Your task to perform on an android device: Open calendar and show me the third week of next month Image 0: 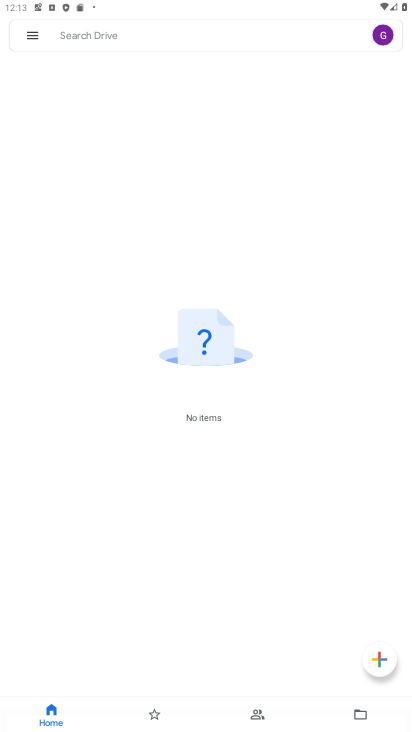
Step 0: press home button
Your task to perform on an android device: Open calendar and show me the third week of next month Image 1: 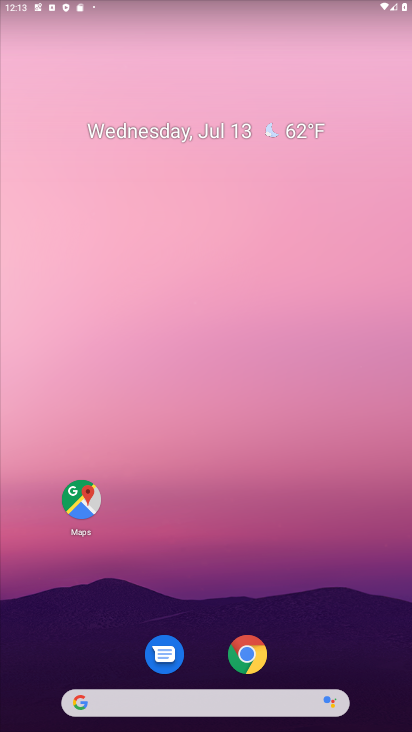
Step 1: drag from (290, 631) to (366, 259)
Your task to perform on an android device: Open calendar and show me the third week of next month Image 2: 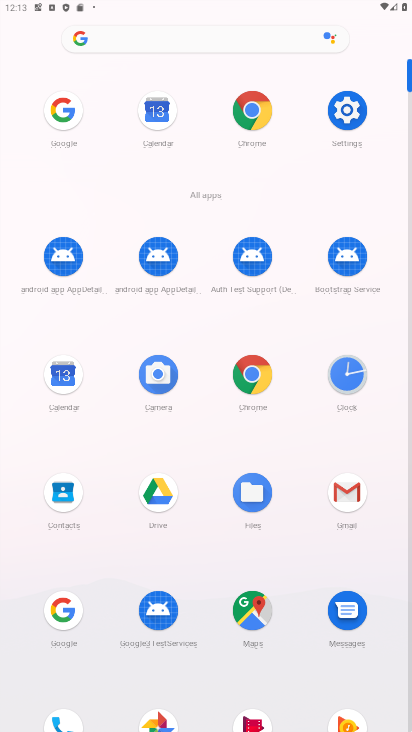
Step 2: click (61, 367)
Your task to perform on an android device: Open calendar and show me the third week of next month Image 3: 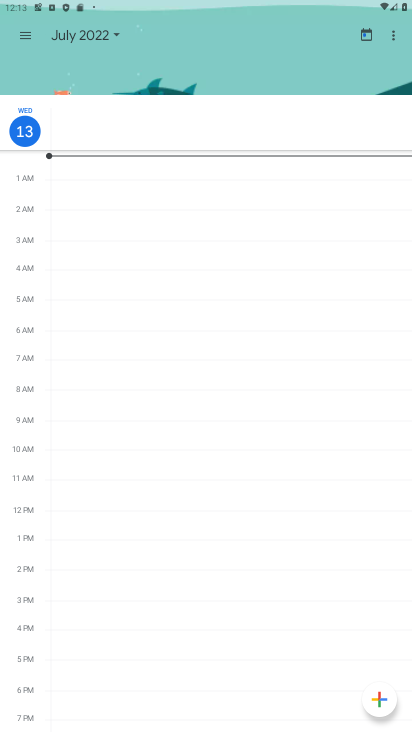
Step 3: click (115, 41)
Your task to perform on an android device: Open calendar and show me the third week of next month Image 4: 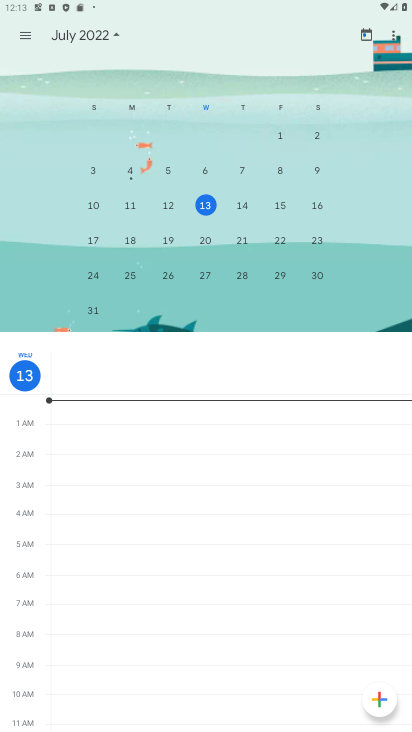
Step 4: drag from (330, 237) to (1, 235)
Your task to perform on an android device: Open calendar and show me the third week of next month Image 5: 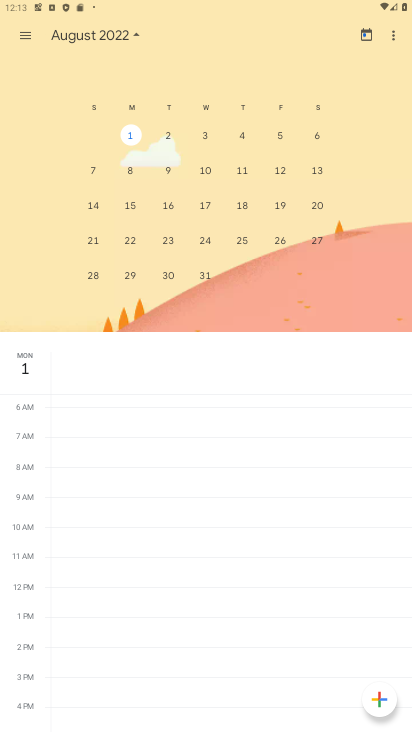
Step 5: click (209, 206)
Your task to perform on an android device: Open calendar and show me the third week of next month Image 6: 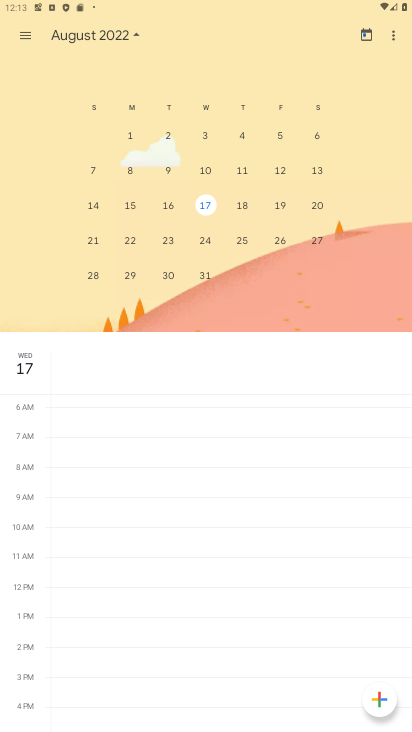
Step 6: click (35, 33)
Your task to perform on an android device: Open calendar and show me the third week of next month Image 7: 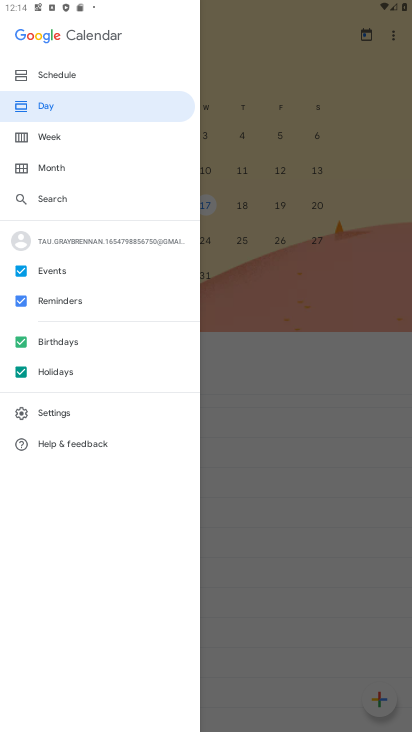
Step 7: click (57, 135)
Your task to perform on an android device: Open calendar and show me the third week of next month Image 8: 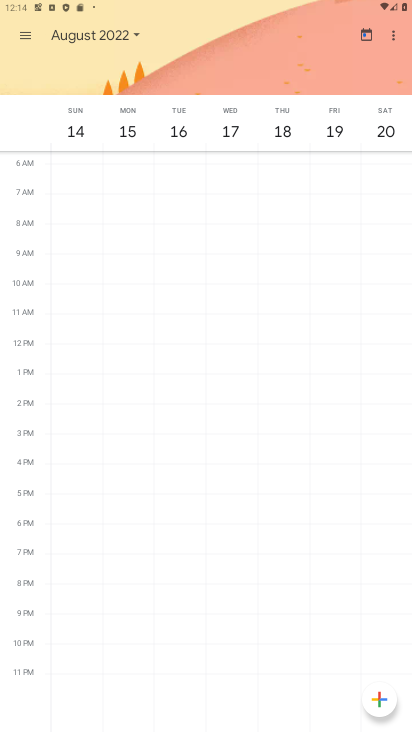
Step 8: task complete